Your task to perform on an android device: change alarm snooze length Image 0: 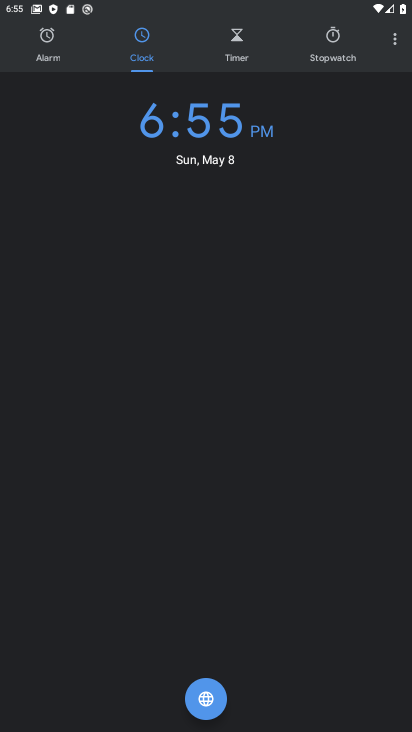
Step 0: press home button
Your task to perform on an android device: change alarm snooze length Image 1: 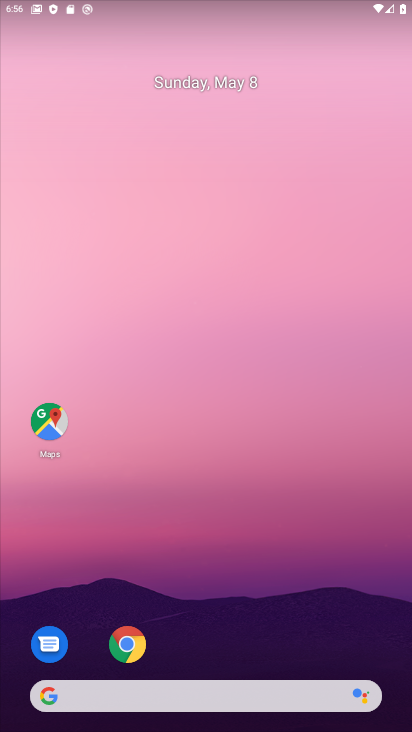
Step 1: drag from (281, 630) to (342, 201)
Your task to perform on an android device: change alarm snooze length Image 2: 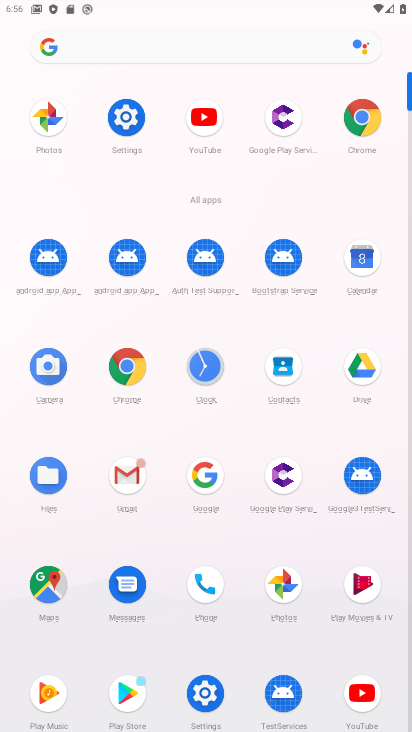
Step 2: click (204, 359)
Your task to perform on an android device: change alarm snooze length Image 3: 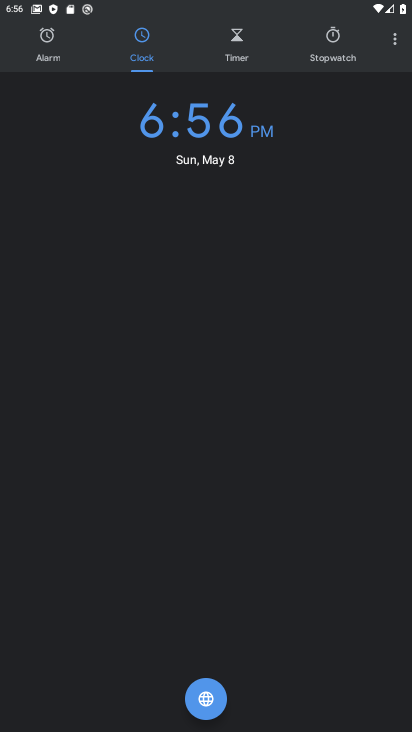
Step 3: click (404, 48)
Your task to perform on an android device: change alarm snooze length Image 4: 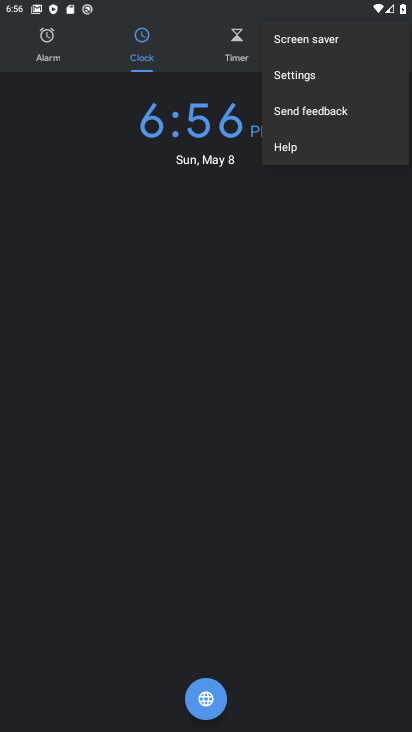
Step 4: click (354, 84)
Your task to perform on an android device: change alarm snooze length Image 5: 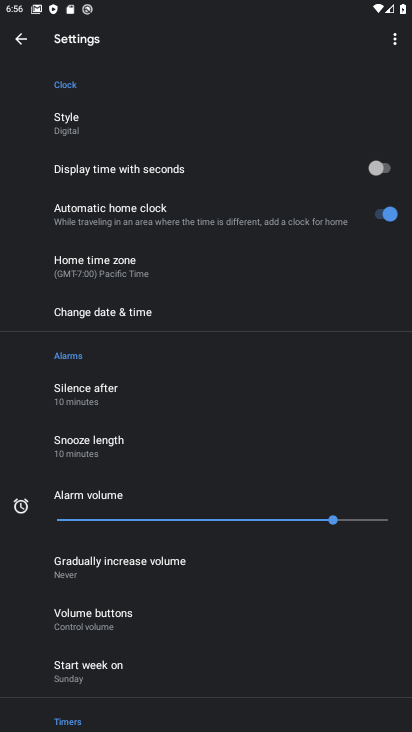
Step 5: click (140, 460)
Your task to perform on an android device: change alarm snooze length Image 6: 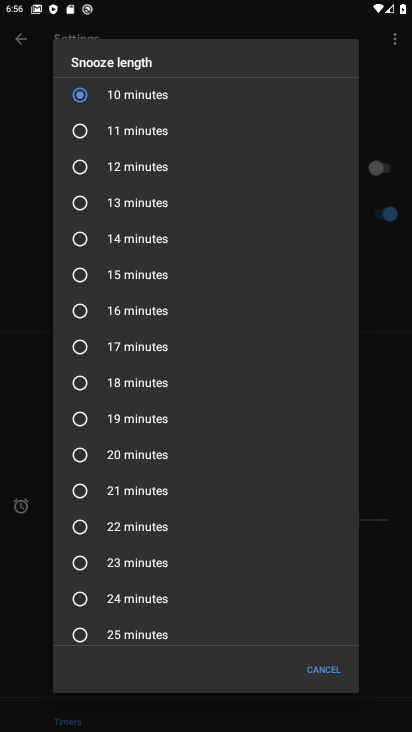
Step 6: click (103, 233)
Your task to perform on an android device: change alarm snooze length Image 7: 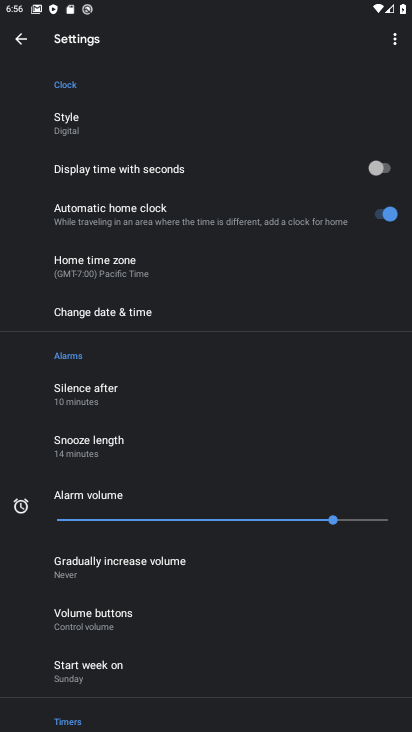
Step 7: task complete